Your task to perform on an android device: Go to ESPN.com Image 0: 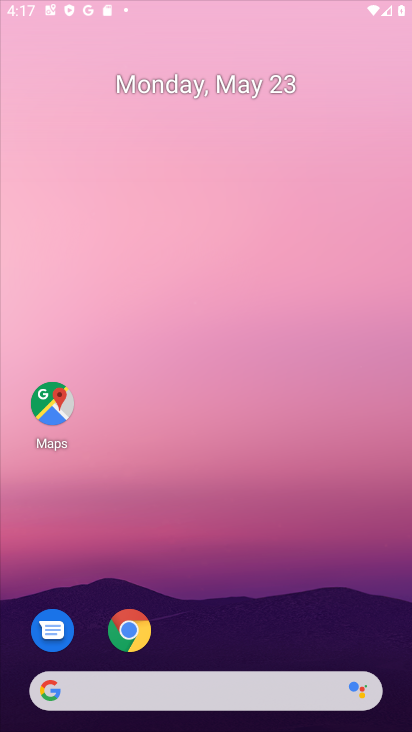
Step 0: press home button
Your task to perform on an android device: Go to ESPN.com Image 1: 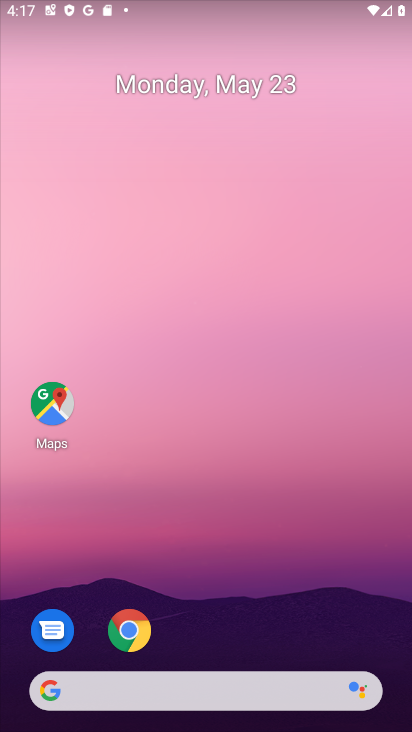
Step 1: click (125, 625)
Your task to perform on an android device: Go to ESPN.com Image 2: 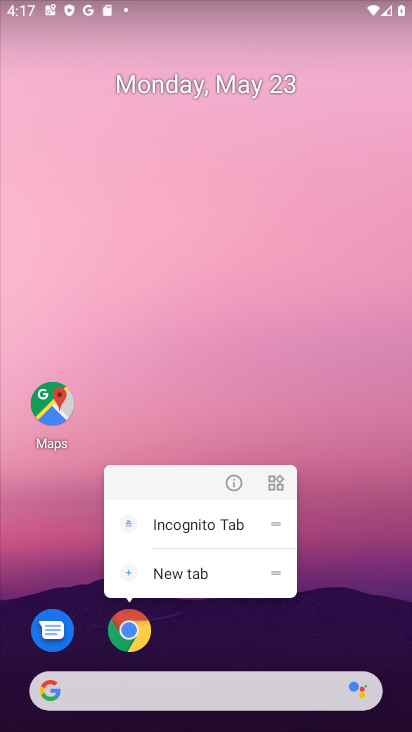
Step 2: click (125, 622)
Your task to perform on an android device: Go to ESPN.com Image 3: 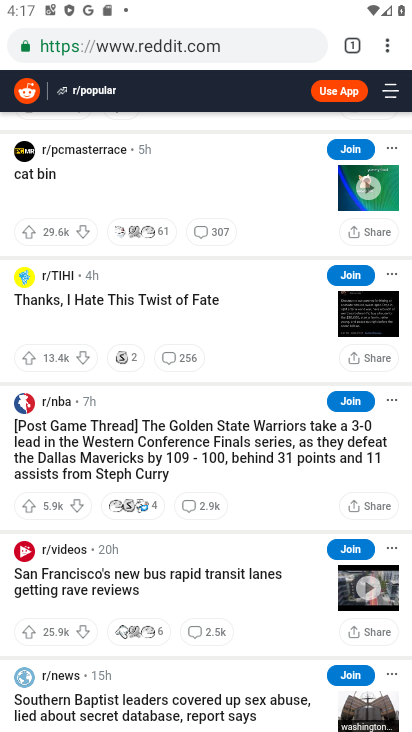
Step 3: click (350, 42)
Your task to perform on an android device: Go to ESPN.com Image 4: 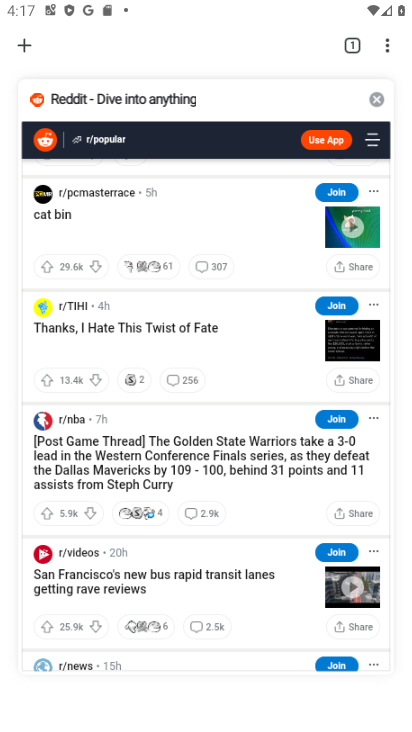
Step 4: click (377, 97)
Your task to perform on an android device: Go to ESPN.com Image 5: 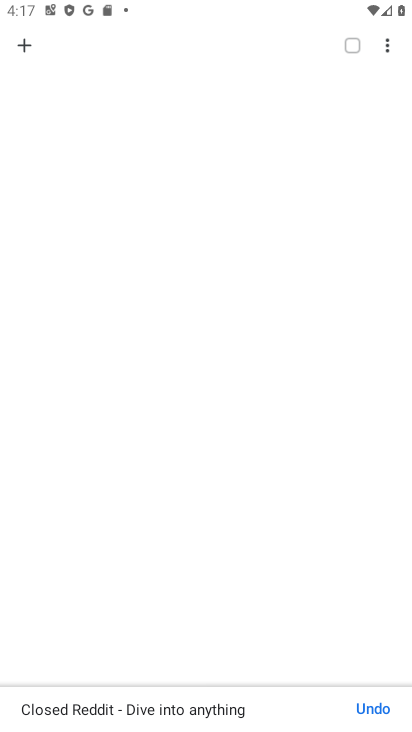
Step 5: click (28, 45)
Your task to perform on an android device: Go to ESPN.com Image 6: 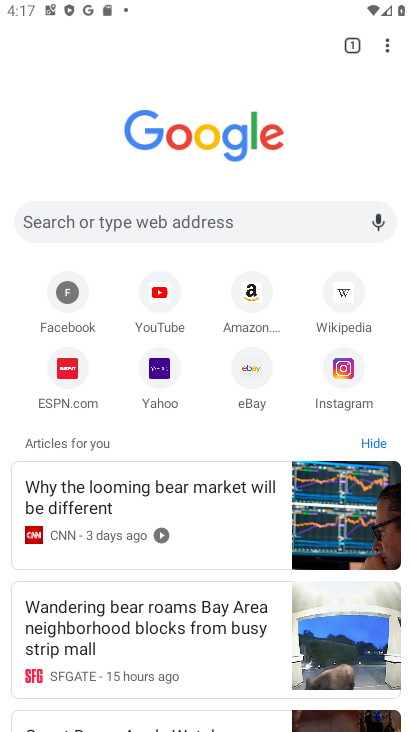
Step 6: click (68, 361)
Your task to perform on an android device: Go to ESPN.com Image 7: 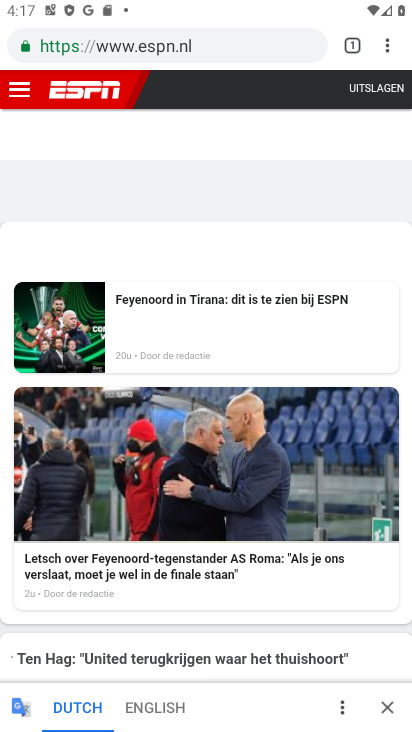
Step 7: drag from (224, 659) to (258, 285)
Your task to perform on an android device: Go to ESPN.com Image 8: 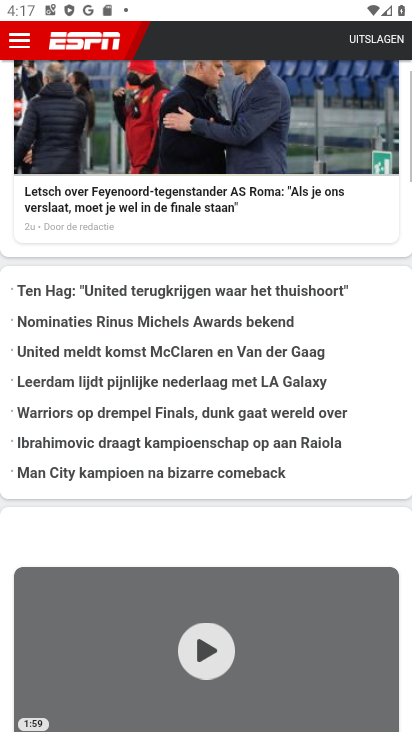
Step 8: drag from (214, 554) to (243, 208)
Your task to perform on an android device: Go to ESPN.com Image 9: 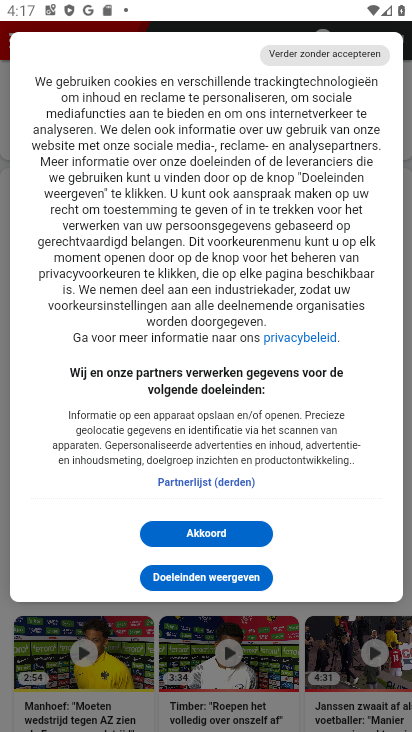
Step 9: click (204, 525)
Your task to perform on an android device: Go to ESPN.com Image 10: 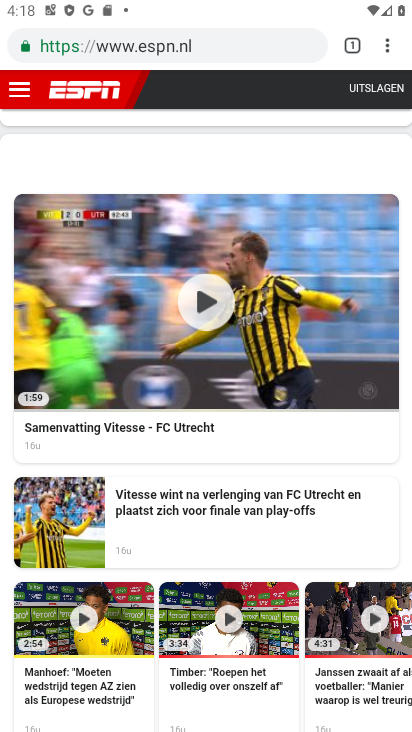
Step 10: task complete